Your task to perform on an android device: remove spam from my inbox in the gmail app Image 0: 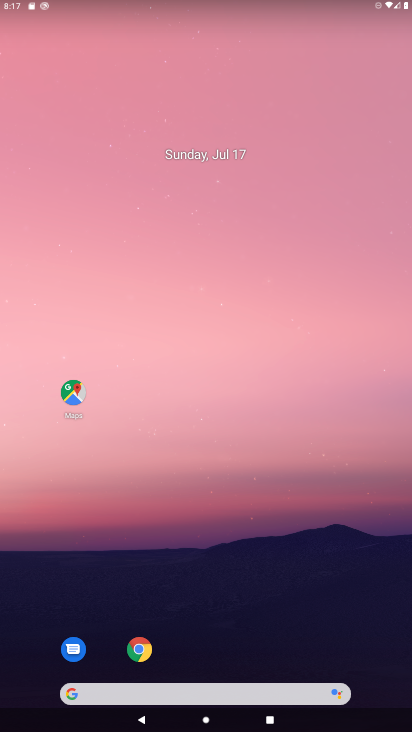
Step 0: drag from (227, 649) to (143, 80)
Your task to perform on an android device: remove spam from my inbox in the gmail app Image 1: 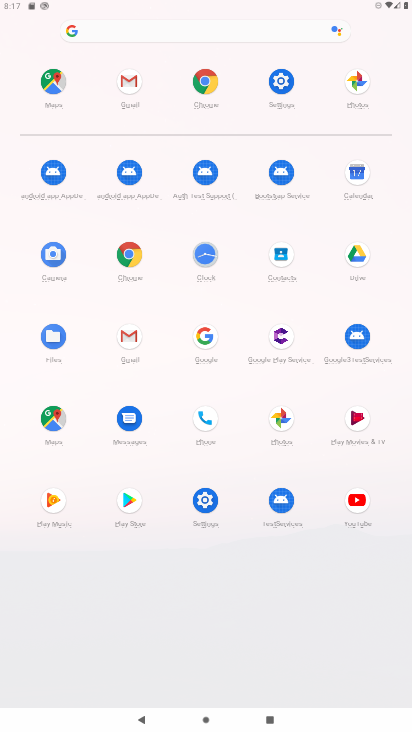
Step 1: click (132, 340)
Your task to perform on an android device: remove spam from my inbox in the gmail app Image 2: 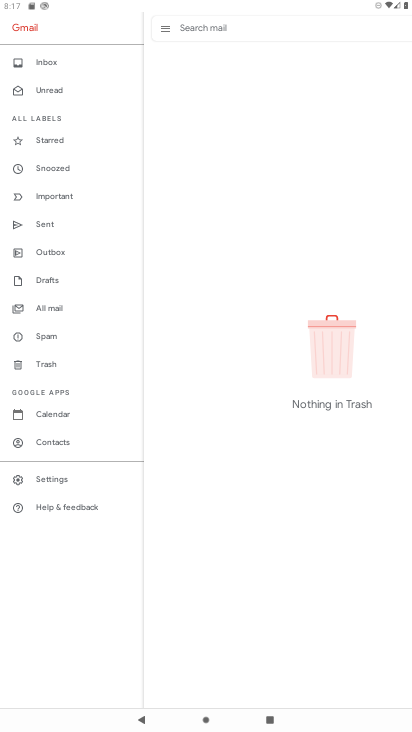
Step 2: click (34, 338)
Your task to perform on an android device: remove spam from my inbox in the gmail app Image 3: 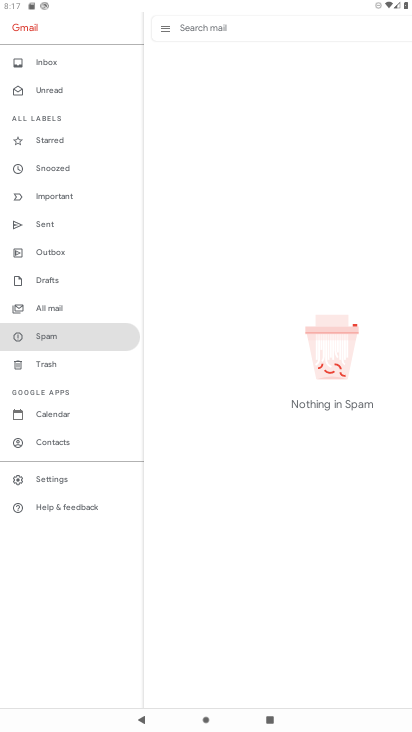
Step 3: task complete